Your task to perform on an android device: turn on priority inbox in the gmail app Image 0: 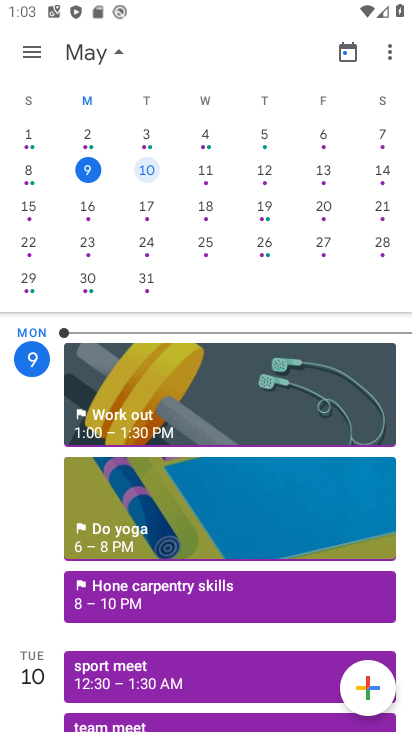
Step 0: press back button
Your task to perform on an android device: turn on priority inbox in the gmail app Image 1: 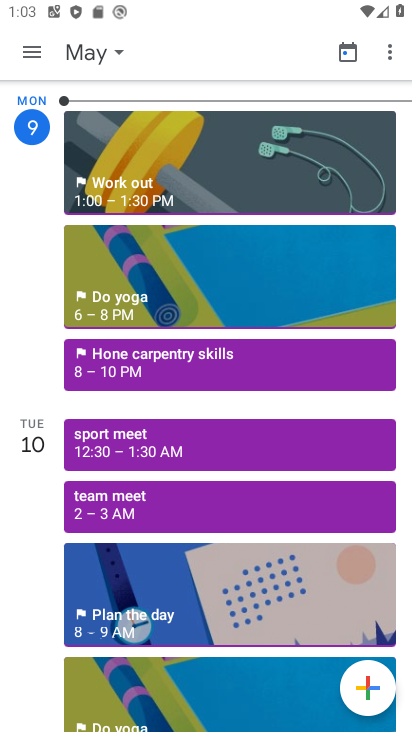
Step 1: press back button
Your task to perform on an android device: turn on priority inbox in the gmail app Image 2: 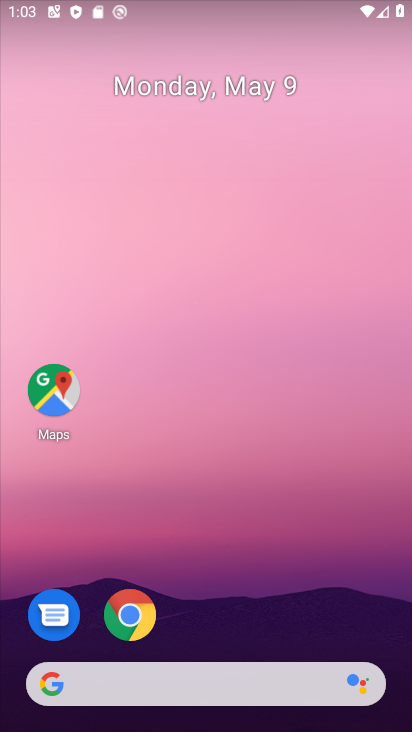
Step 2: drag from (238, 581) to (212, 66)
Your task to perform on an android device: turn on priority inbox in the gmail app Image 3: 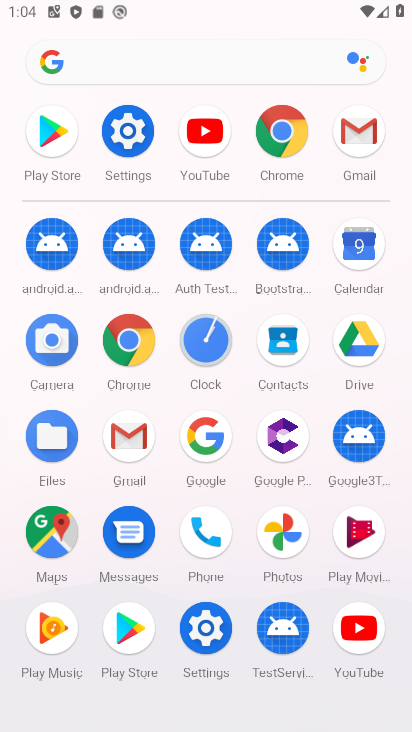
Step 3: click (126, 441)
Your task to perform on an android device: turn on priority inbox in the gmail app Image 4: 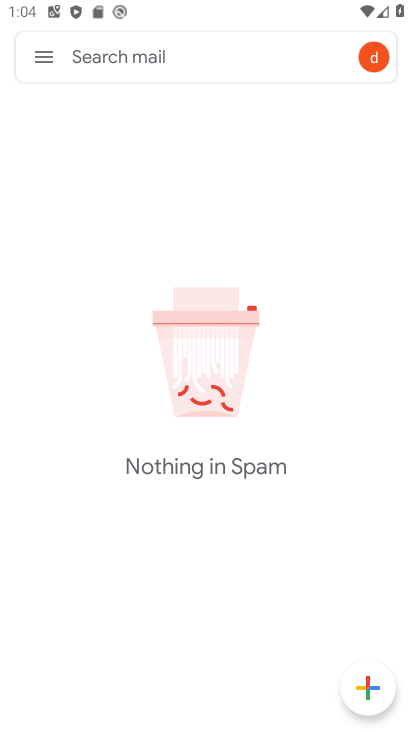
Step 4: click (48, 63)
Your task to perform on an android device: turn on priority inbox in the gmail app Image 5: 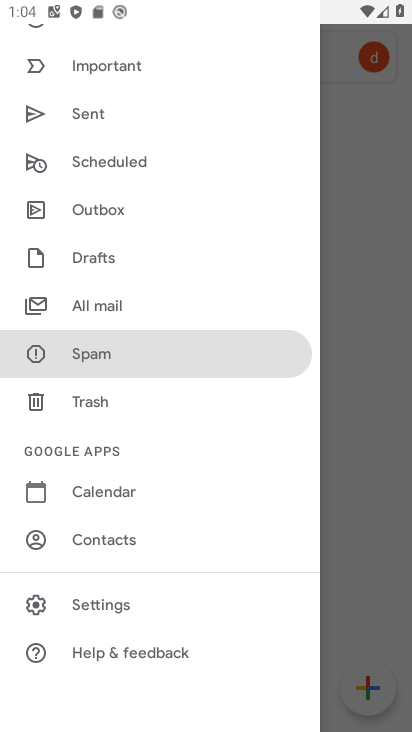
Step 5: drag from (134, 446) to (185, 314)
Your task to perform on an android device: turn on priority inbox in the gmail app Image 6: 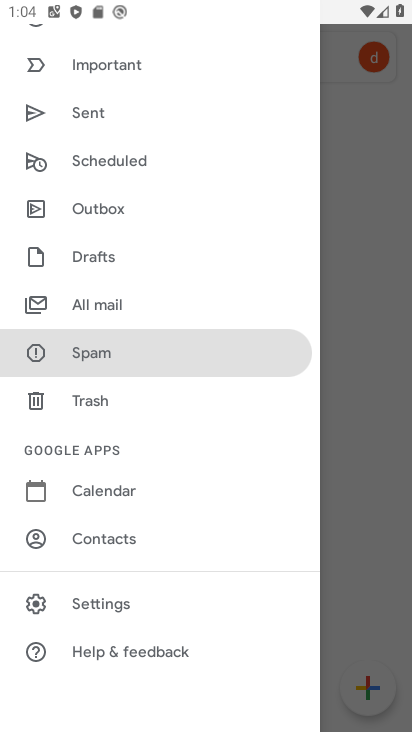
Step 6: click (99, 605)
Your task to perform on an android device: turn on priority inbox in the gmail app Image 7: 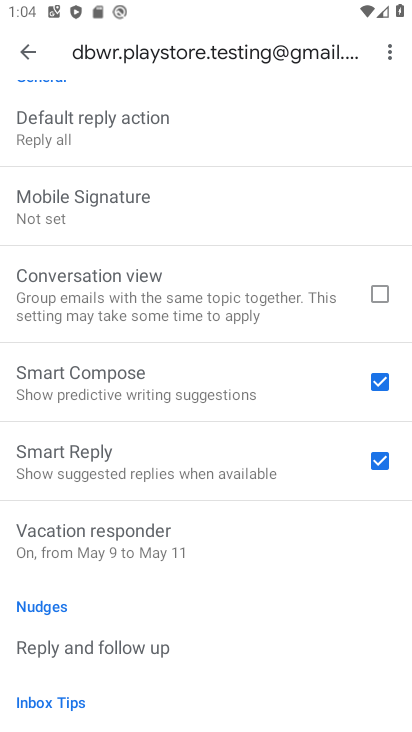
Step 7: drag from (175, 229) to (209, 365)
Your task to perform on an android device: turn on priority inbox in the gmail app Image 8: 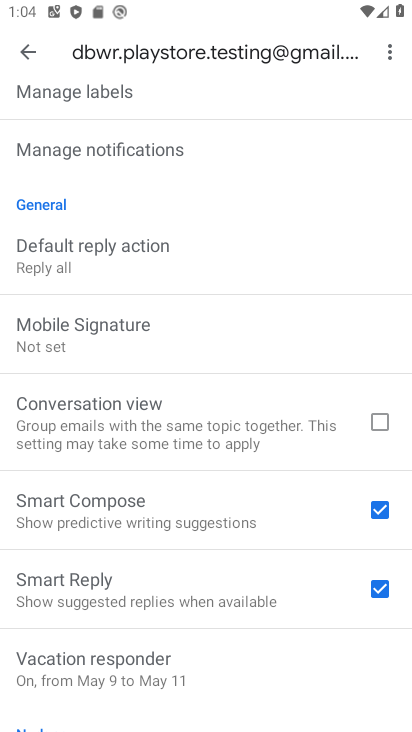
Step 8: drag from (167, 218) to (191, 326)
Your task to perform on an android device: turn on priority inbox in the gmail app Image 9: 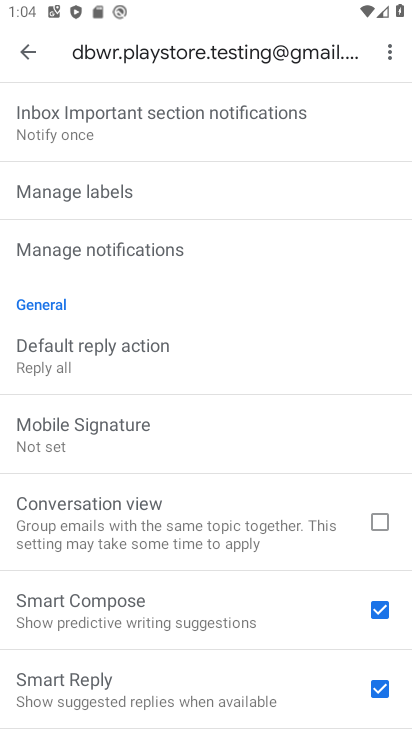
Step 9: drag from (127, 177) to (186, 325)
Your task to perform on an android device: turn on priority inbox in the gmail app Image 10: 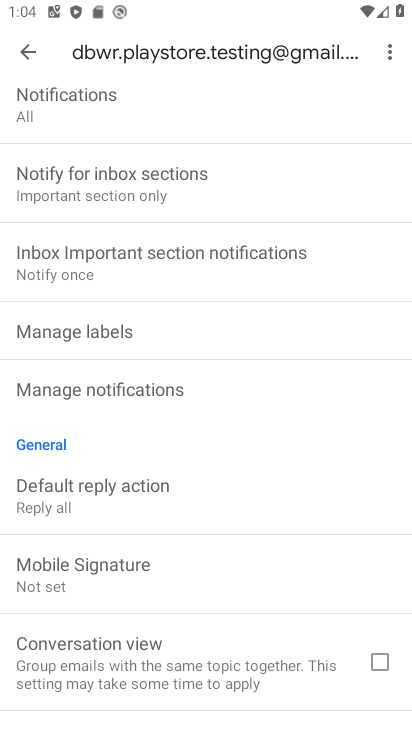
Step 10: drag from (165, 198) to (188, 338)
Your task to perform on an android device: turn on priority inbox in the gmail app Image 11: 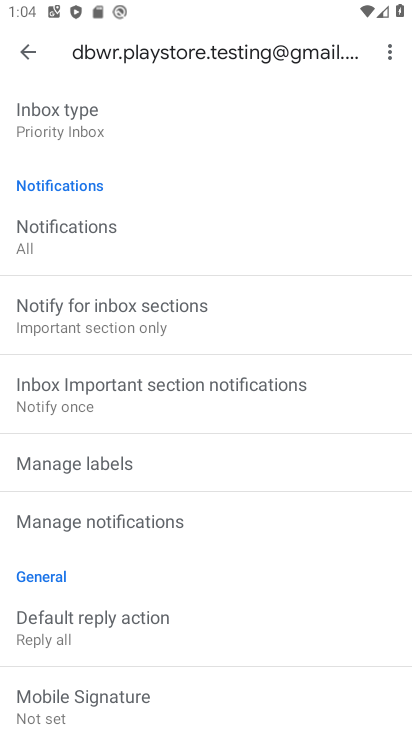
Step 11: drag from (119, 199) to (179, 307)
Your task to perform on an android device: turn on priority inbox in the gmail app Image 12: 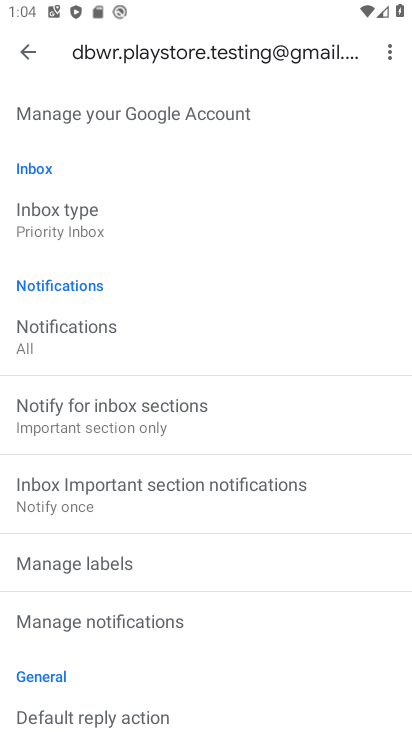
Step 12: click (108, 234)
Your task to perform on an android device: turn on priority inbox in the gmail app Image 13: 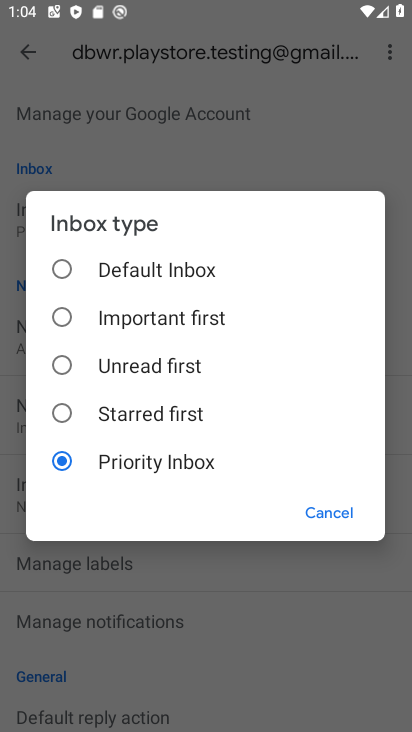
Step 13: click (63, 462)
Your task to perform on an android device: turn on priority inbox in the gmail app Image 14: 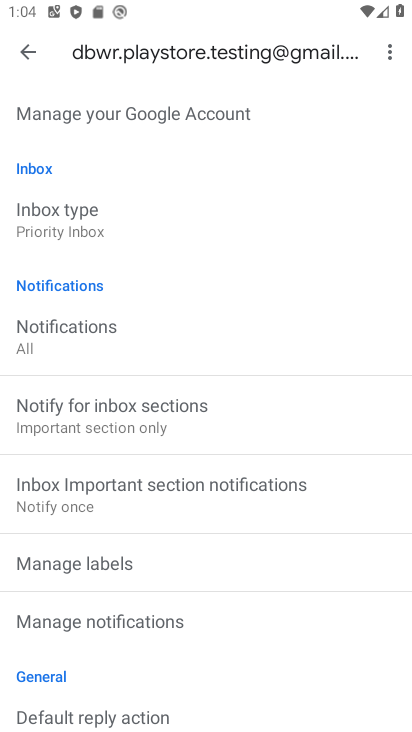
Step 14: task complete